Your task to perform on an android device: check android version Image 0: 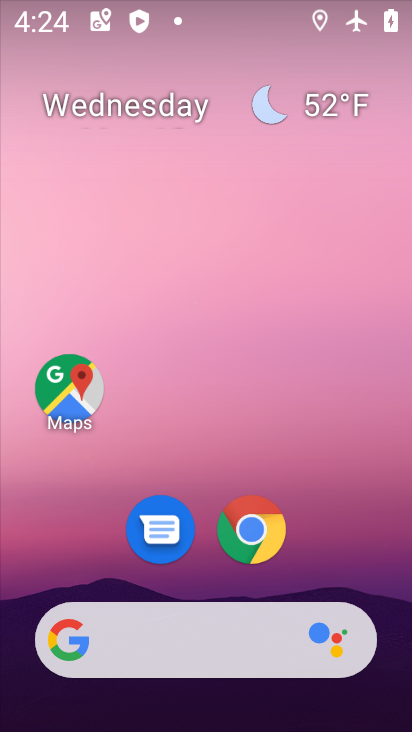
Step 0: drag from (346, 577) to (198, 119)
Your task to perform on an android device: check android version Image 1: 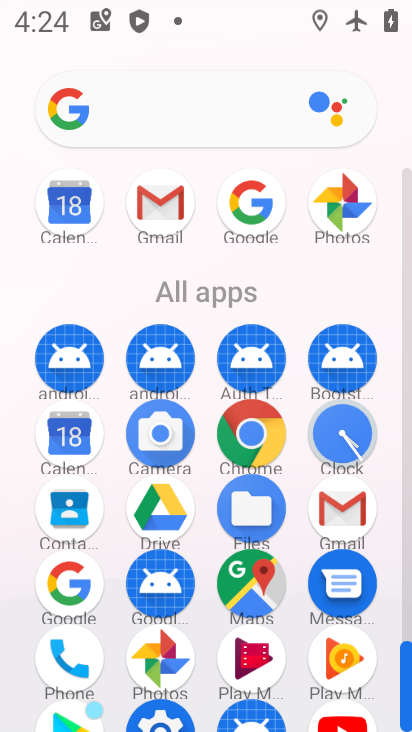
Step 1: drag from (204, 525) to (201, 234)
Your task to perform on an android device: check android version Image 2: 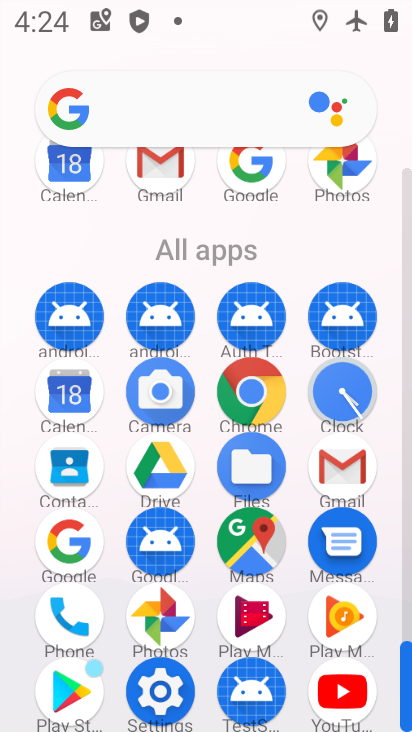
Step 2: click (158, 689)
Your task to perform on an android device: check android version Image 3: 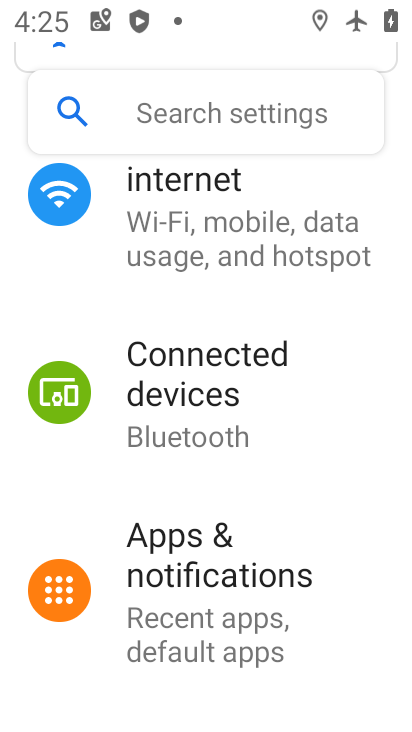
Step 3: drag from (180, 498) to (211, 276)
Your task to perform on an android device: check android version Image 4: 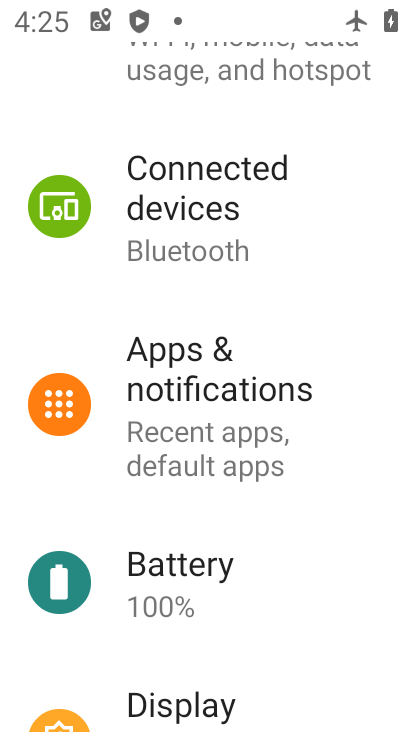
Step 4: drag from (161, 510) to (218, 313)
Your task to perform on an android device: check android version Image 5: 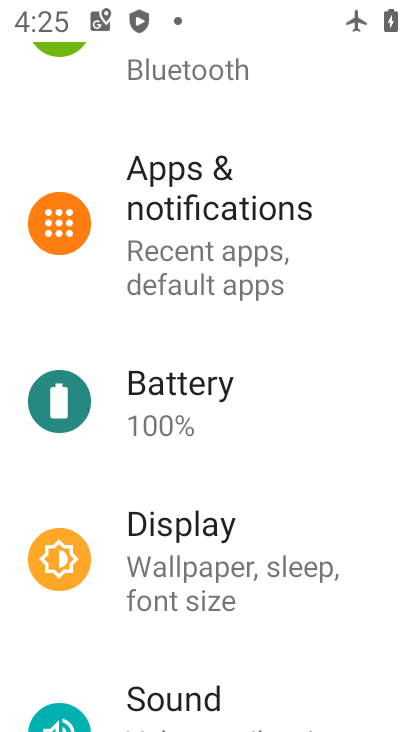
Step 5: drag from (167, 623) to (200, 370)
Your task to perform on an android device: check android version Image 6: 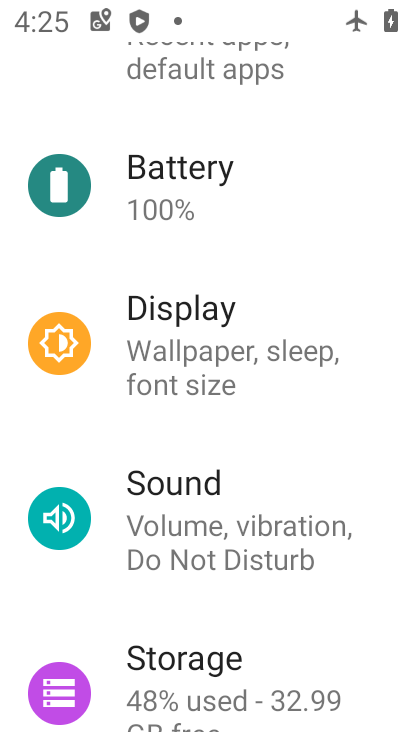
Step 6: drag from (158, 598) to (198, 393)
Your task to perform on an android device: check android version Image 7: 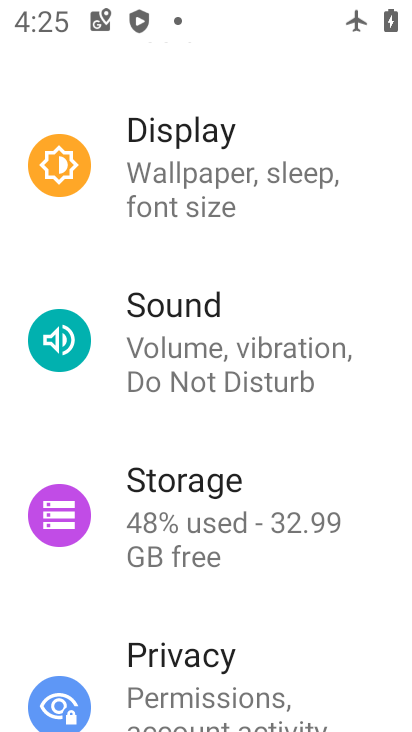
Step 7: drag from (149, 596) to (211, 418)
Your task to perform on an android device: check android version Image 8: 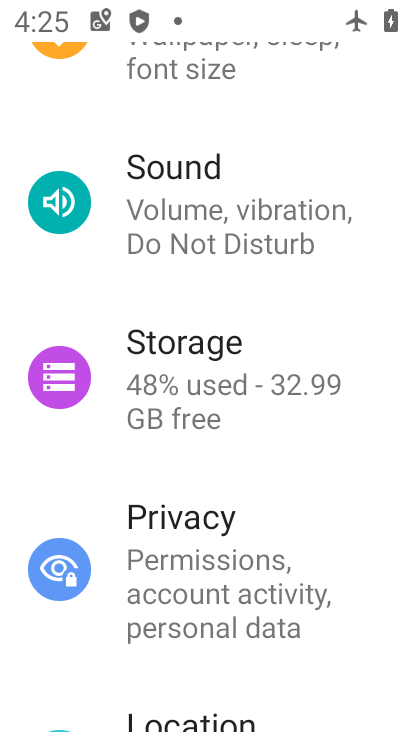
Step 8: drag from (163, 652) to (223, 409)
Your task to perform on an android device: check android version Image 9: 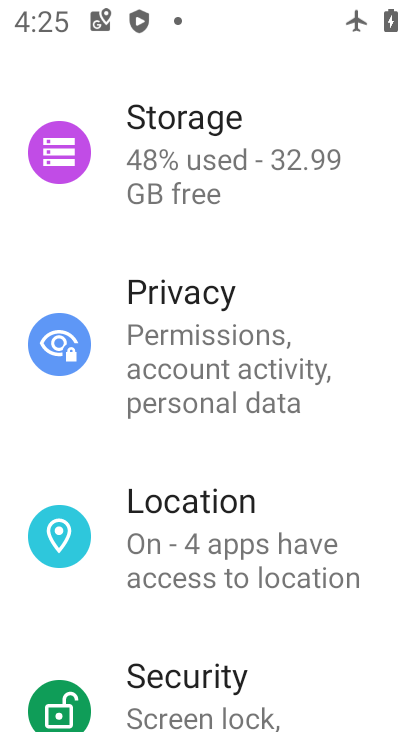
Step 9: drag from (179, 606) to (238, 376)
Your task to perform on an android device: check android version Image 10: 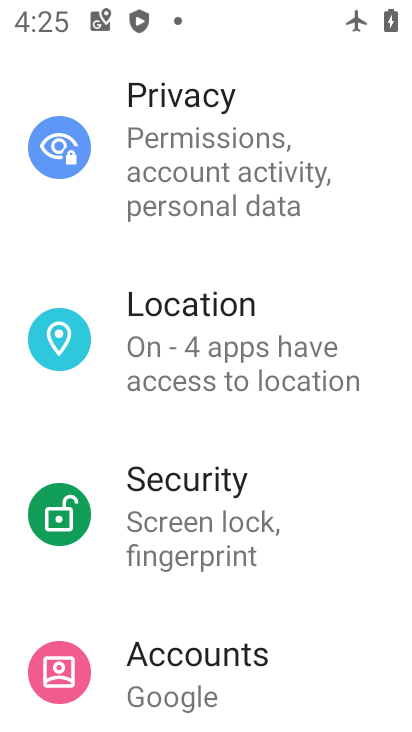
Step 10: drag from (158, 616) to (264, 361)
Your task to perform on an android device: check android version Image 11: 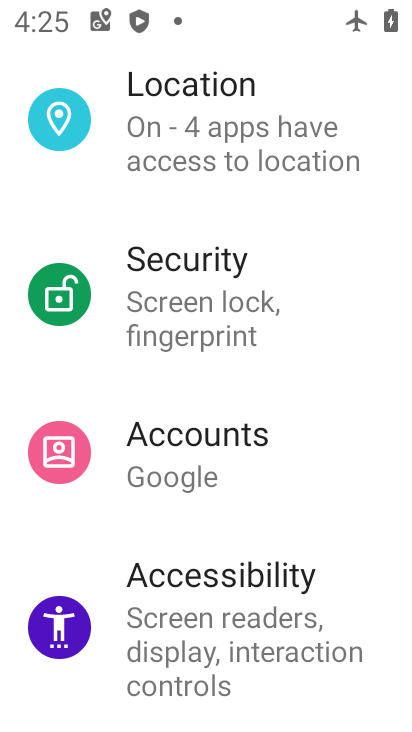
Step 11: drag from (144, 531) to (227, 323)
Your task to perform on an android device: check android version Image 12: 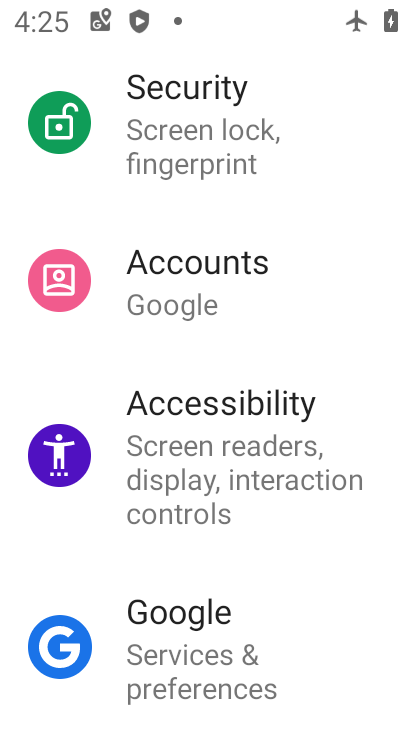
Step 12: drag from (158, 565) to (270, 310)
Your task to perform on an android device: check android version Image 13: 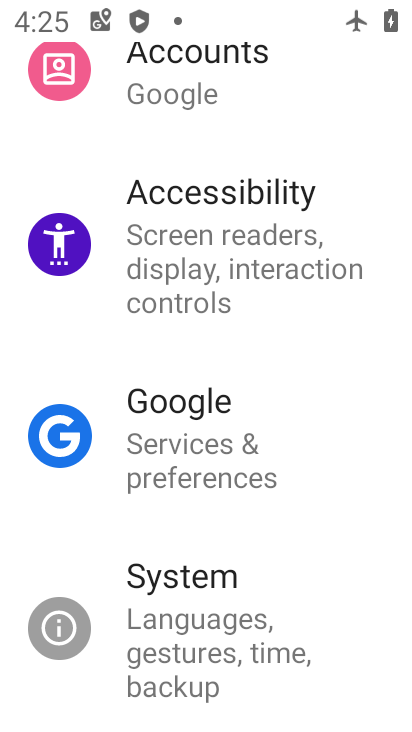
Step 13: drag from (147, 527) to (240, 306)
Your task to perform on an android device: check android version Image 14: 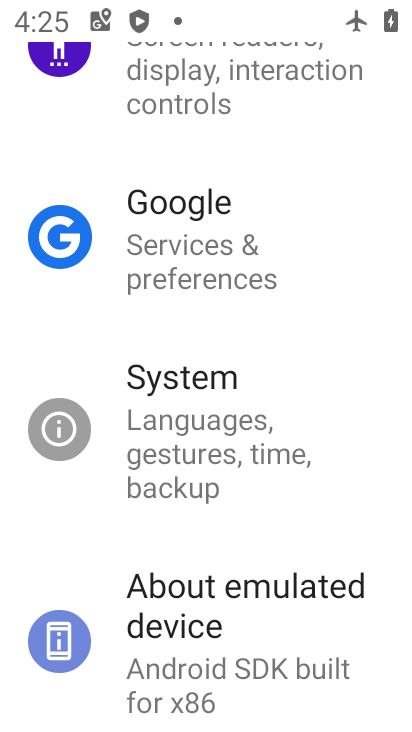
Step 14: click (188, 601)
Your task to perform on an android device: check android version Image 15: 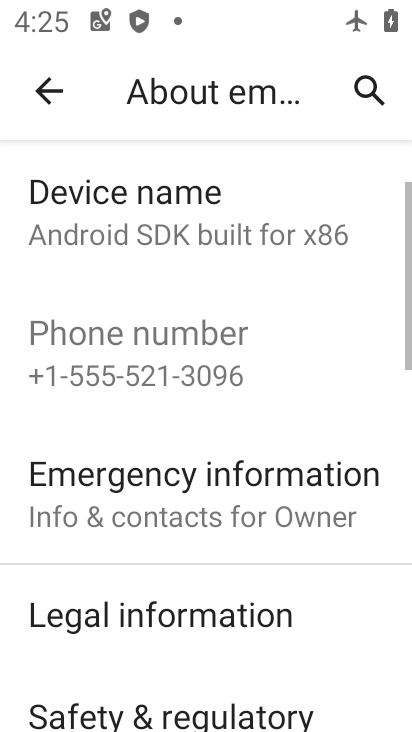
Step 15: drag from (175, 561) to (224, 404)
Your task to perform on an android device: check android version Image 16: 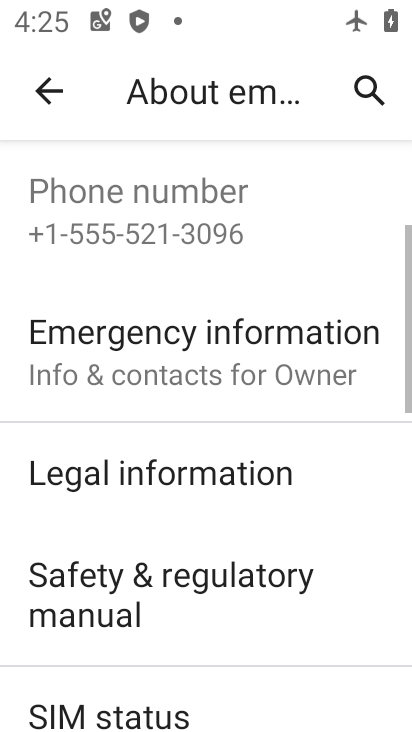
Step 16: drag from (154, 546) to (211, 386)
Your task to perform on an android device: check android version Image 17: 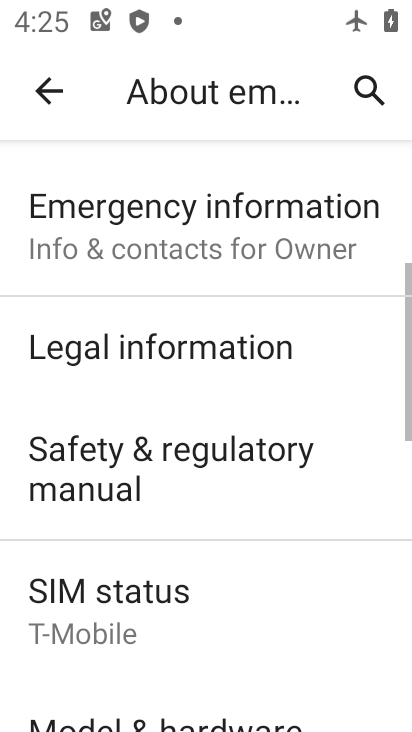
Step 17: drag from (139, 650) to (208, 463)
Your task to perform on an android device: check android version Image 18: 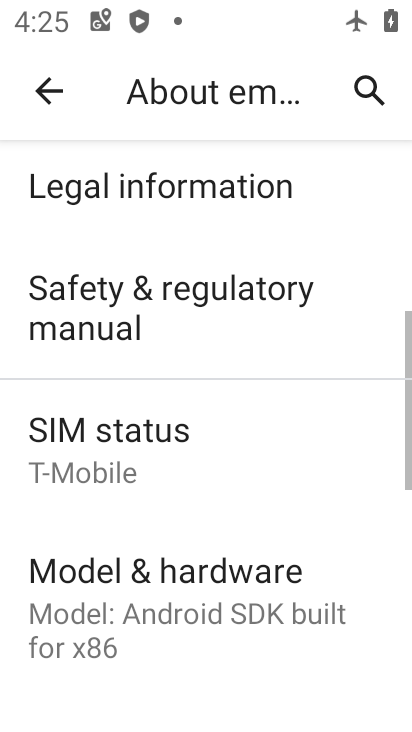
Step 18: drag from (132, 678) to (233, 455)
Your task to perform on an android device: check android version Image 19: 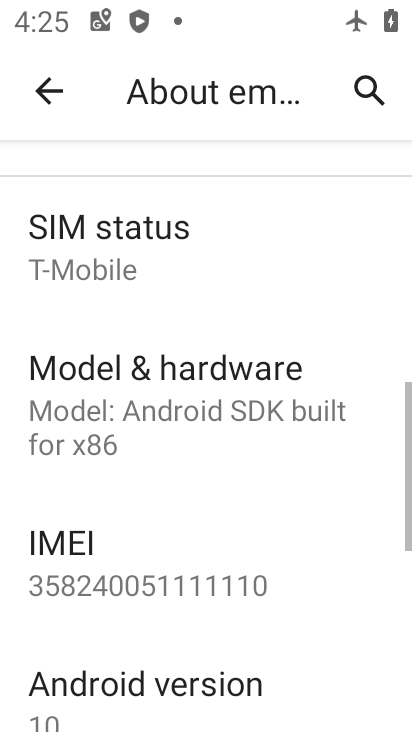
Step 19: drag from (149, 654) to (220, 478)
Your task to perform on an android device: check android version Image 20: 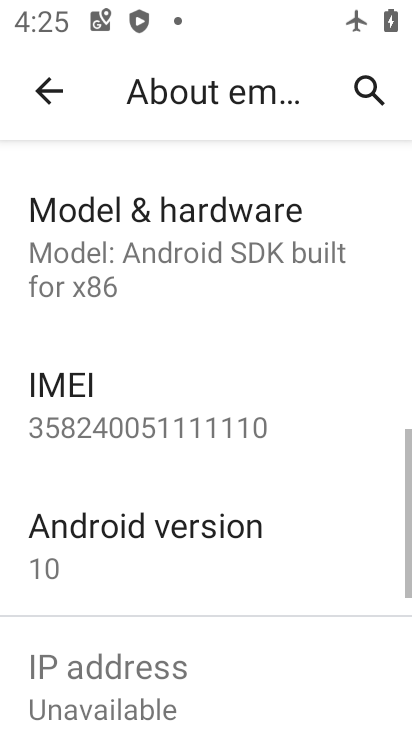
Step 20: click (201, 520)
Your task to perform on an android device: check android version Image 21: 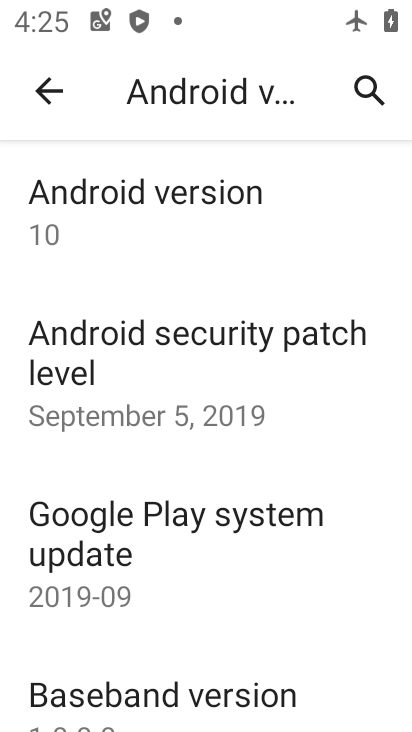
Step 21: task complete